Your task to perform on an android device: set default search engine in the chrome app Image 0: 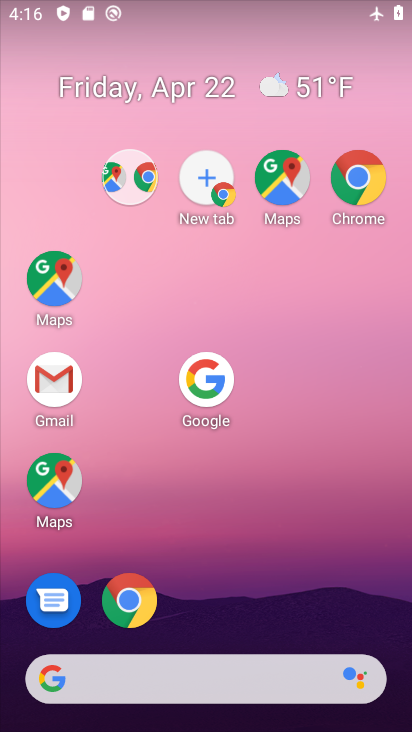
Step 0: drag from (233, 608) to (143, 245)
Your task to perform on an android device: set default search engine in the chrome app Image 1: 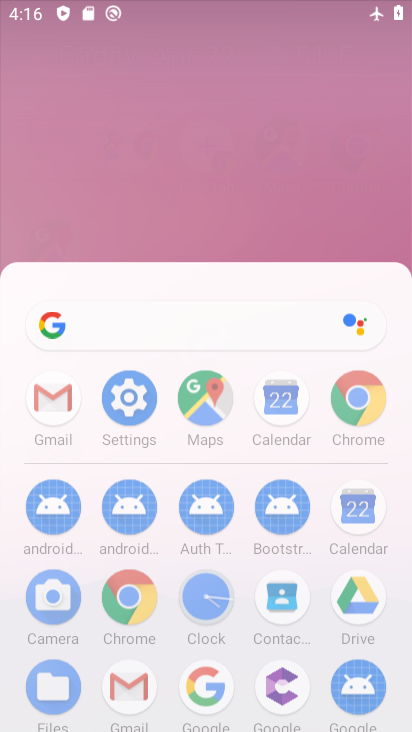
Step 1: drag from (192, 142) to (93, 86)
Your task to perform on an android device: set default search engine in the chrome app Image 2: 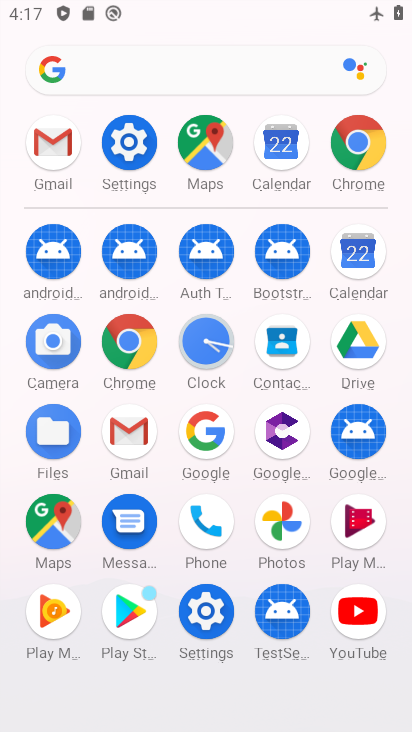
Step 2: click (359, 136)
Your task to perform on an android device: set default search engine in the chrome app Image 3: 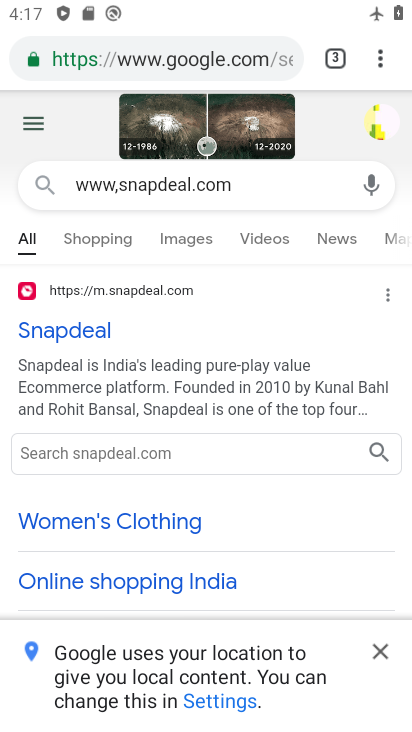
Step 3: drag from (175, 165) to (143, 378)
Your task to perform on an android device: set default search engine in the chrome app Image 4: 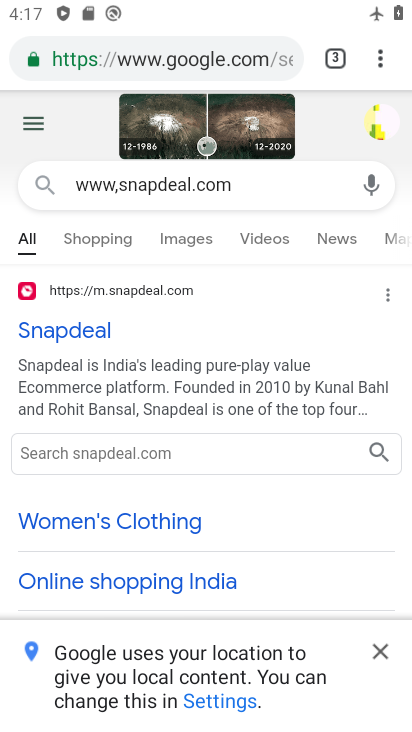
Step 4: drag from (128, 442) to (193, 570)
Your task to perform on an android device: set default search engine in the chrome app Image 5: 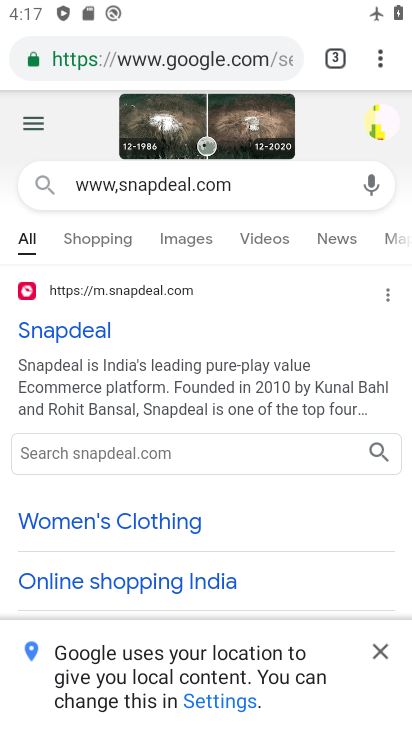
Step 5: press home button
Your task to perform on an android device: set default search engine in the chrome app Image 6: 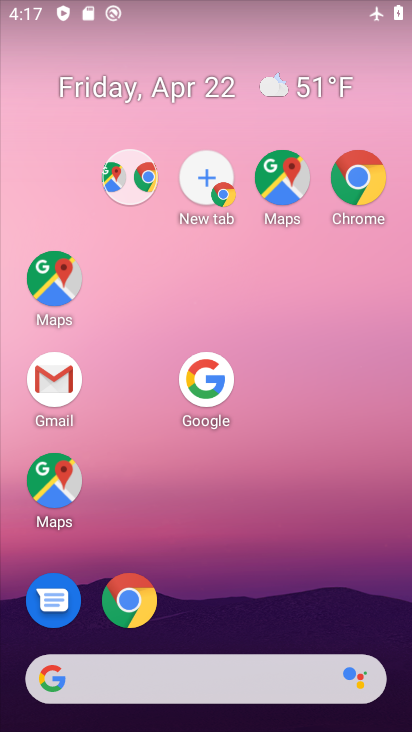
Step 6: click (154, 147)
Your task to perform on an android device: set default search engine in the chrome app Image 7: 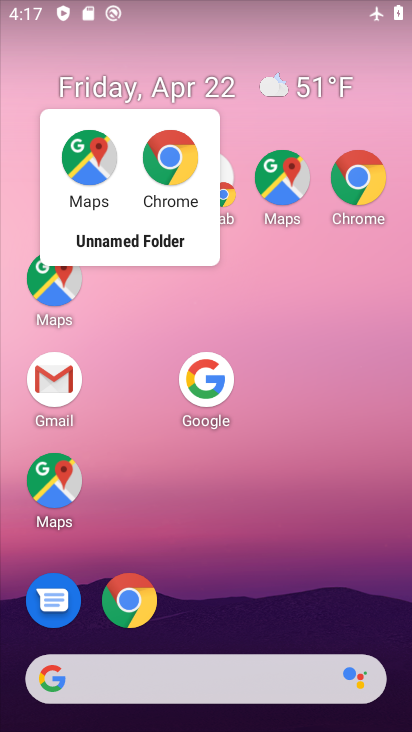
Step 7: drag from (251, 524) to (173, 7)
Your task to perform on an android device: set default search engine in the chrome app Image 8: 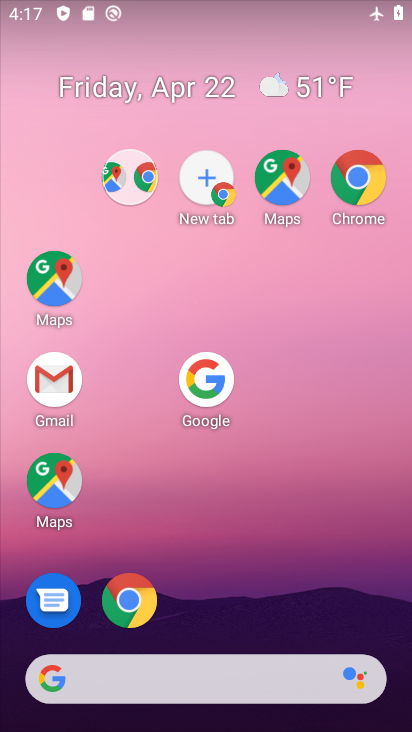
Step 8: drag from (267, 460) to (211, 195)
Your task to perform on an android device: set default search engine in the chrome app Image 9: 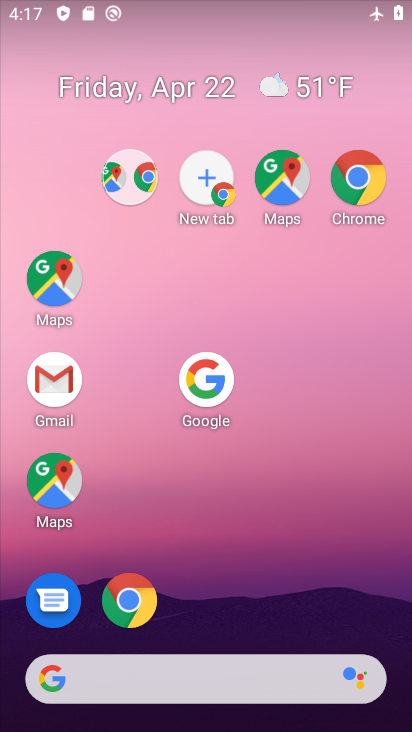
Step 9: drag from (207, 244) to (180, 160)
Your task to perform on an android device: set default search engine in the chrome app Image 10: 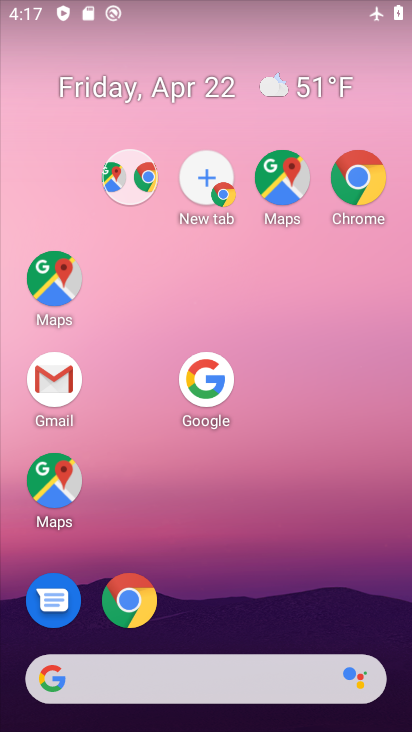
Step 10: drag from (356, 187) to (205, 255)
Your task to perform on an android device: set default search engine in the chrome app Image 11: 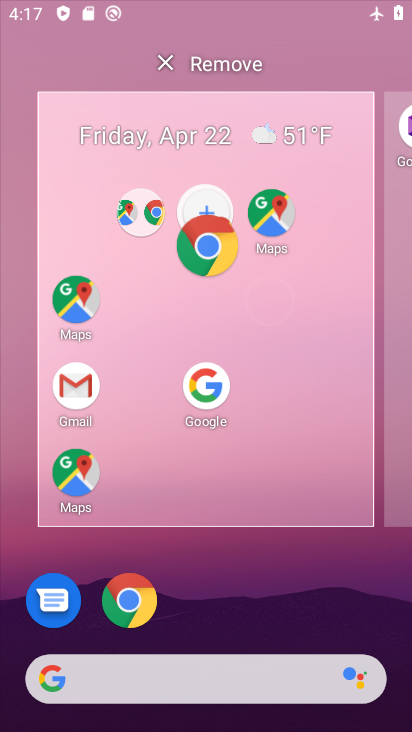
Step 11: click (205, 255)
Your task to perform on an android device: set default search engine in the chrome app Image 12: 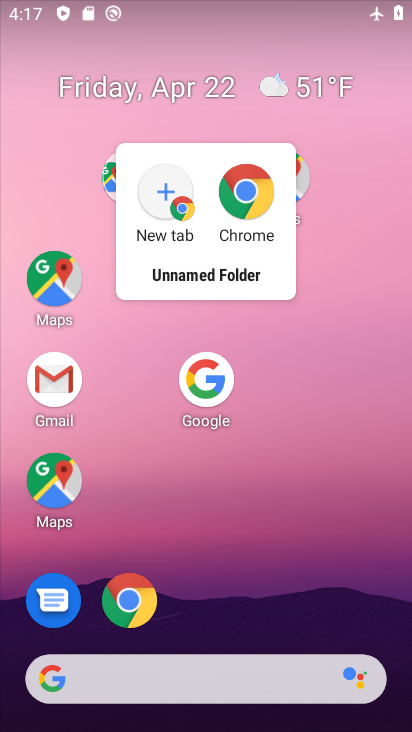
Step 12: click (255, 191)
Your task to perform on an android device: set default search engine in the chrome app Image 13: 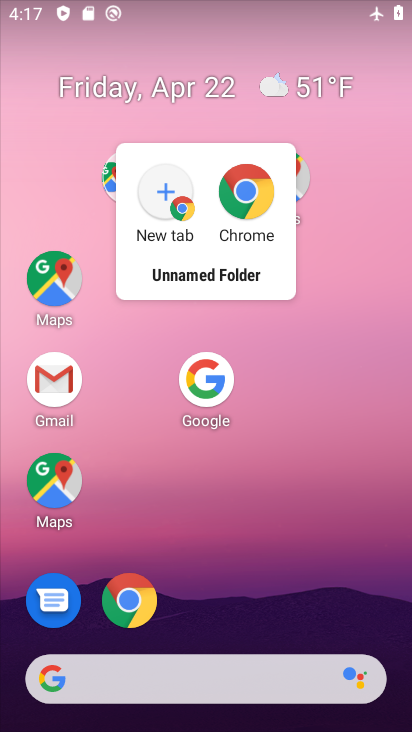
Step 13: click (255, 191)
Your task to perform on an android device: set default search engine in the chrome app Image 14: 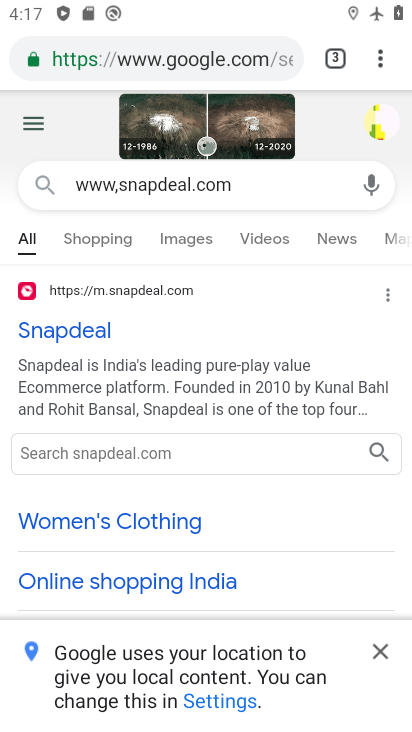
Step 14: drag from (382, 55) to (180, 624)
Your task to perform on an android device: set default search engine in the chrome app Image 15: 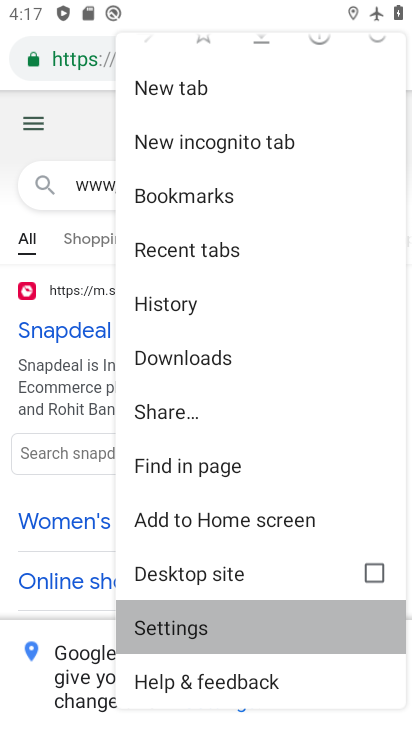
Step 15: click (178, 615)
Your task to perform on an android device: set default search engine in the chrome app Image 16: 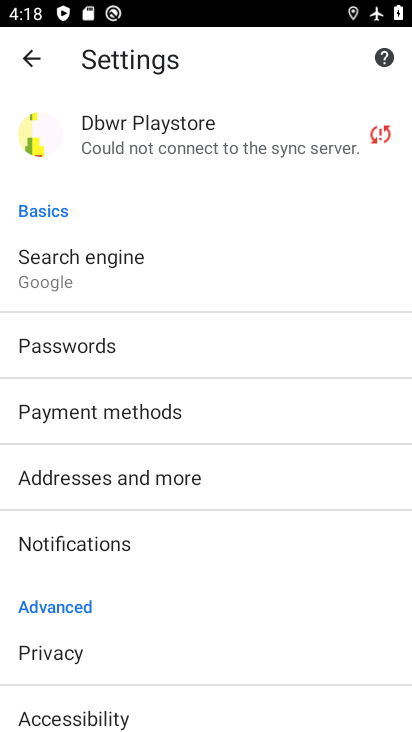
Step 16: drag from (183, 303) to (66, 152)
Your task to perform on an android device: set default search engine in the chrome app Image 17: 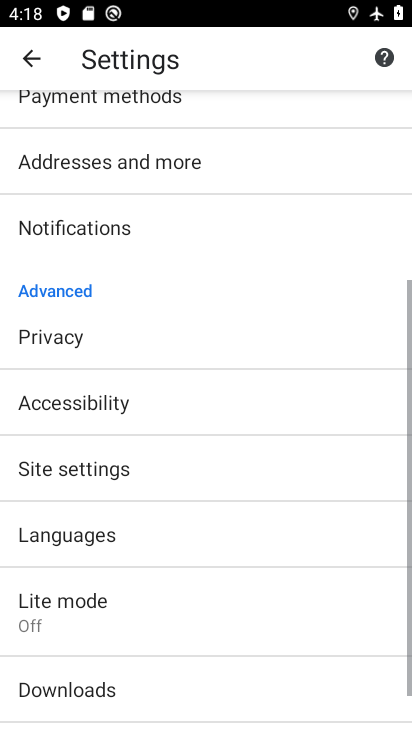
Step 17: drag from (186, 430) to (118, 142)
Your task to perform on an android device: set default search engine in the chrome app Image 18: 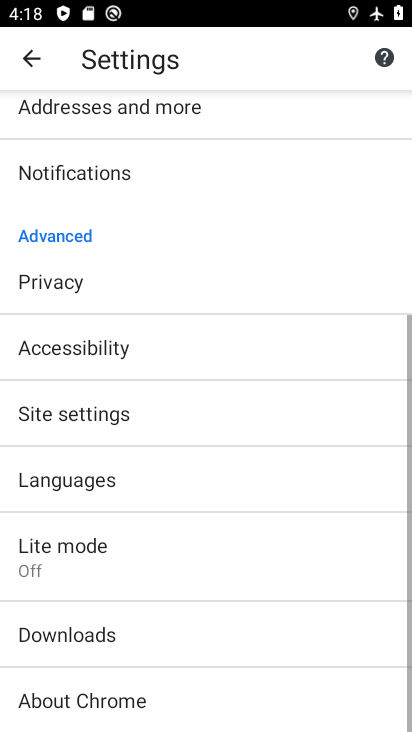
Step 18: drag from (85, 355) to (170, 648)
Your task to perform on an android device: set default search engine in the chrome app Image 19: 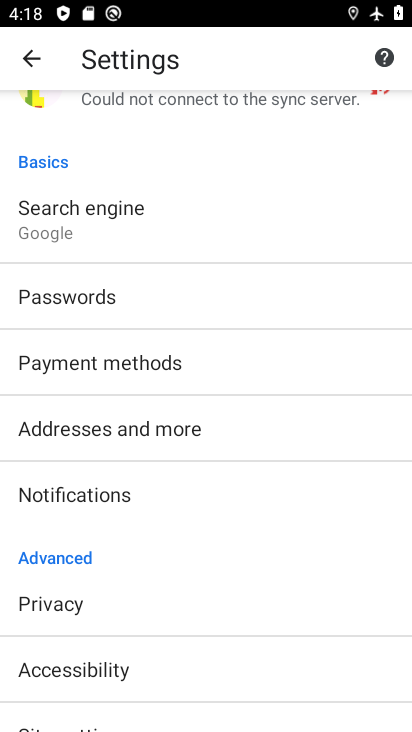
Step 19: click (81, 218)
Your task to perform on an android device: set default search engine in the chrome app Image 20: 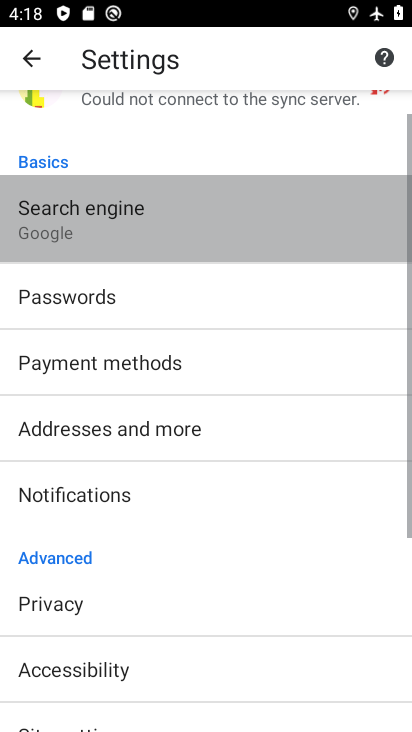
Step 20: click (79, 218)
Your task to perform on an android device: set default search engine in the chrome app Image 21: 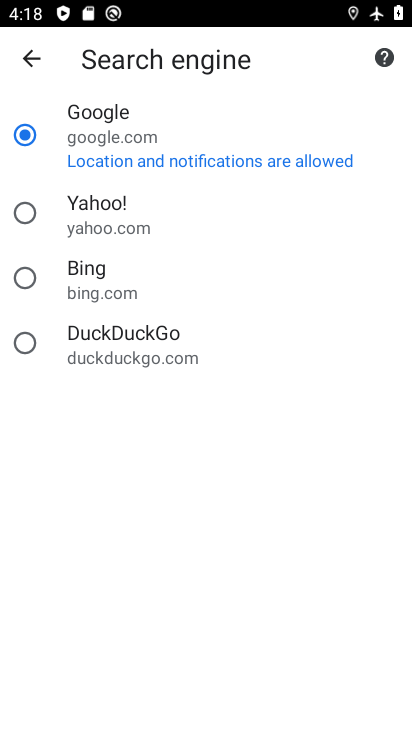
Step 21: click (28, 216)
Your task to perform on an android device: set default search engine in the chrome app Image 22: 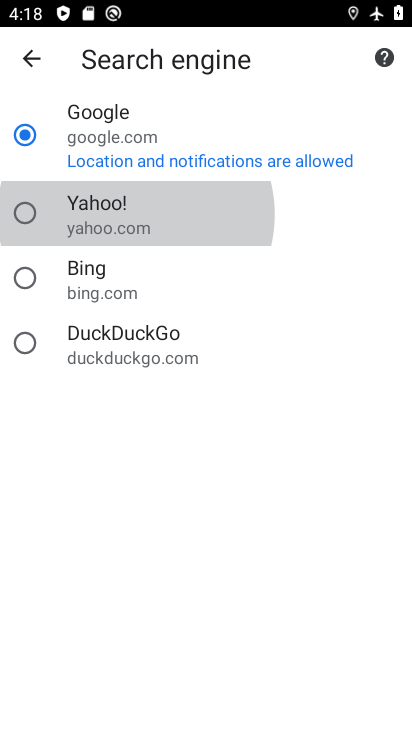
Step 22: click (28, 211)
Your task to perform on an android device: set default search engine in the chrome app Image 23: 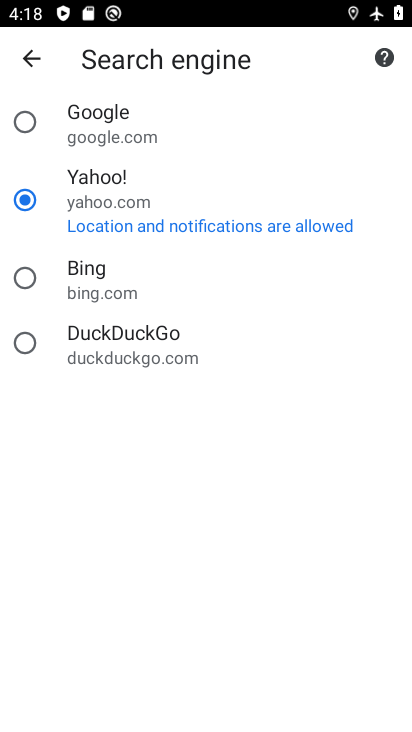
Step 23: click (24, 120)
Your task to perform on an android device: set default search engine in the chrome app Image 24: 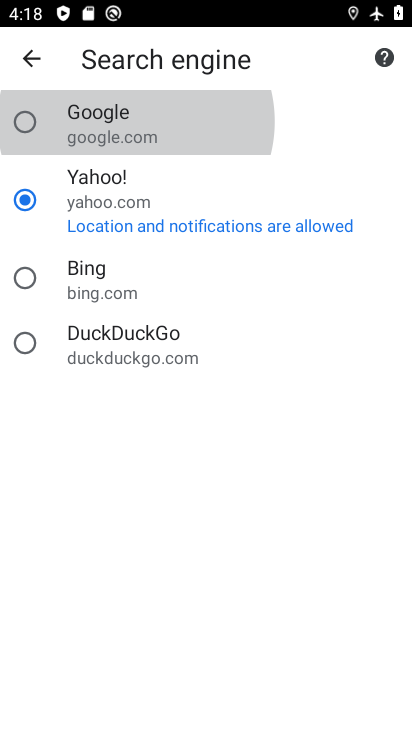
Step 24: click (25, 119)
Your task to perform on an android device: set default search engine in the chrome app Image 25: 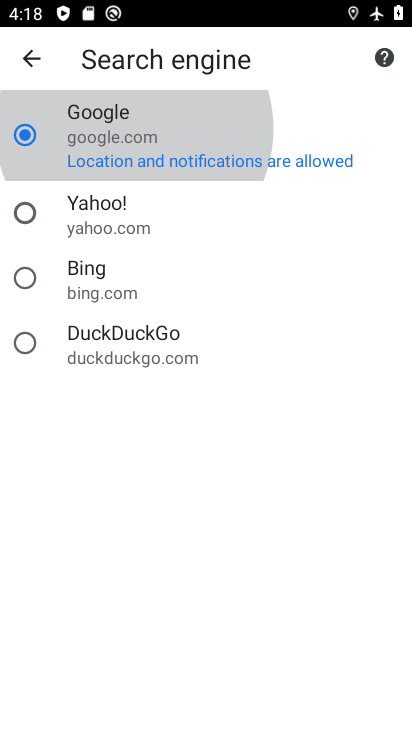
Step 25: click (26, 118)
Your task to perform on an android device: set default search engine in the chrome app Image 26: 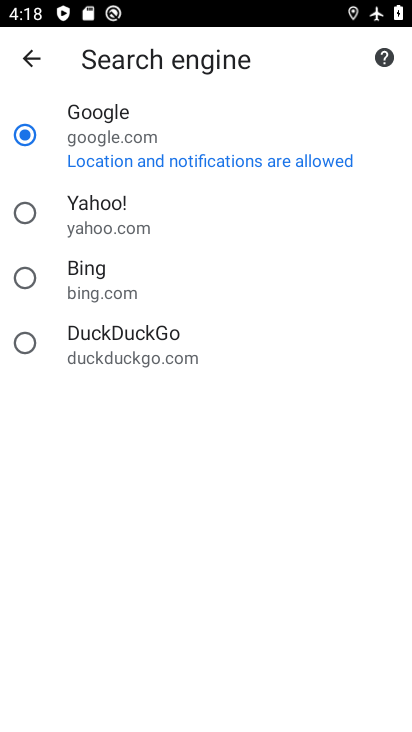
Step 26: task complete